Your task to perform on an android device: empty trash in google photos Image 0: 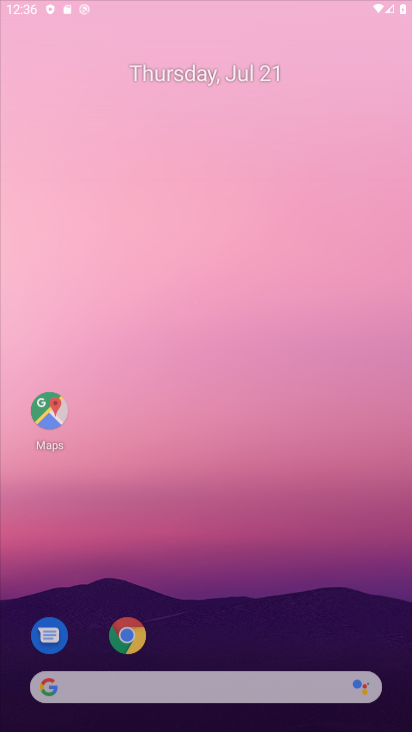
Step 0: click (125, 167)
Your task to perform on an android device: empty trash in google photos Image 1: 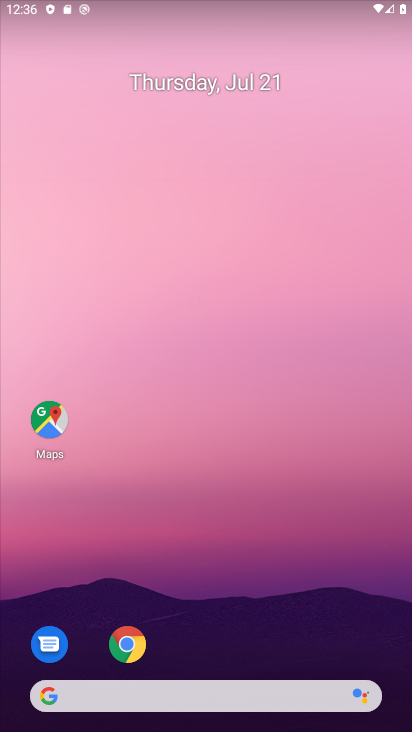
Step 1: drag from (214, 690) to (197, 190)
Your task to perform on an android device: empty trash in google photos Image 2: 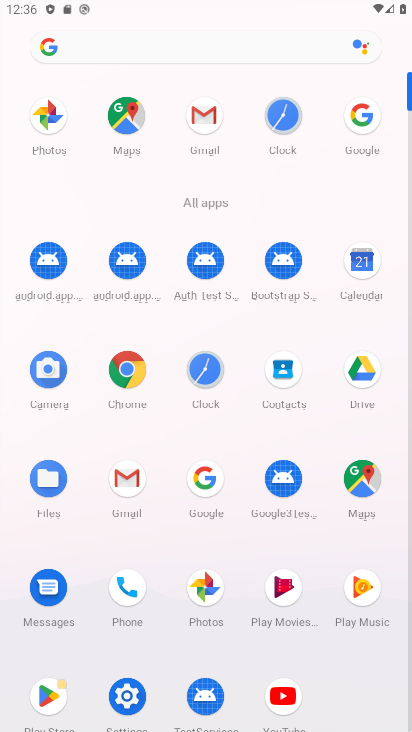
Step 2: click (195, 593)
Your task to perform on an android device: empty trash in google photos Image 3: 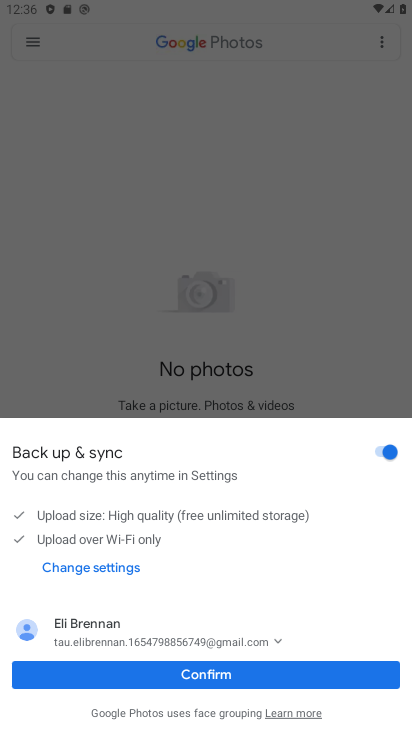
Step 3: click (300, 682)
Your task to perform on an android device: empty trash in google photos Image 4: 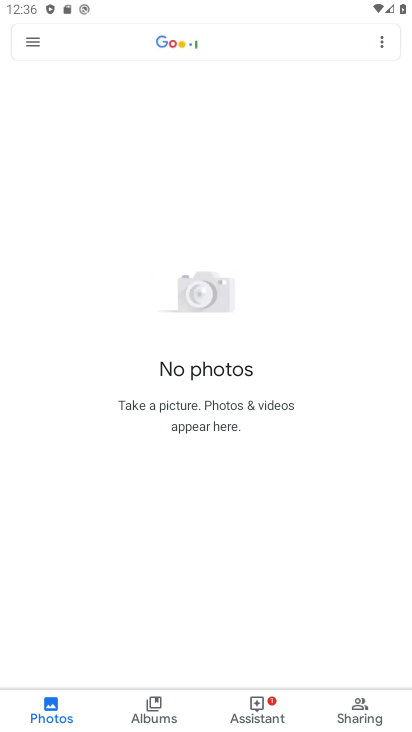
Step 4: click (20, 41)
Your task to perform on an android device: empty trash in google photos Image 5: 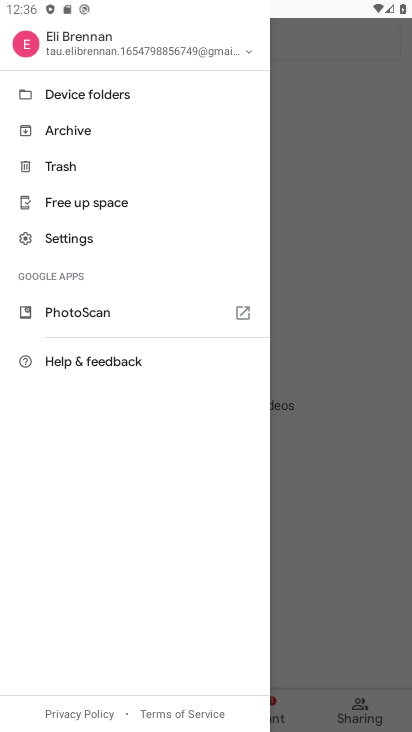
Step 5: click (52, 171)
Your task to perform on an android device: empty trash in google photos Image 6: 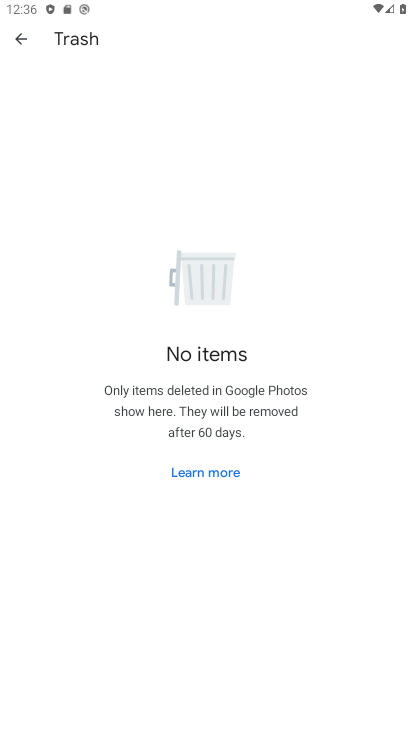
Step 6: task complete